Your task to perform on an android device: read, delete, or share a saved page in the chrome app Image 0: 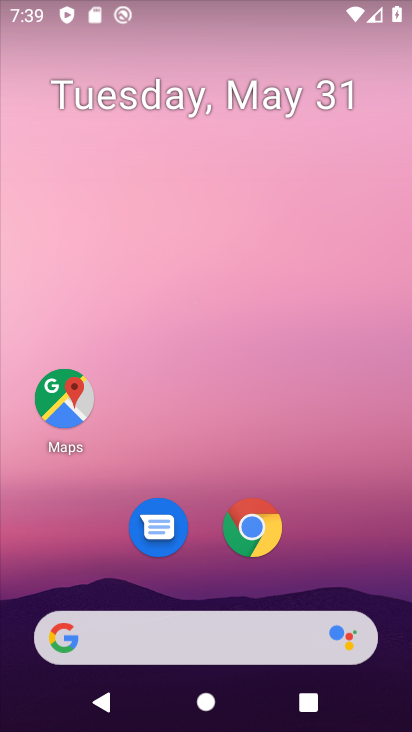
Step 0: click (251, 522)
Your task to perform on an android device: read, delete, or share a saved page in the chrome app Image 1: 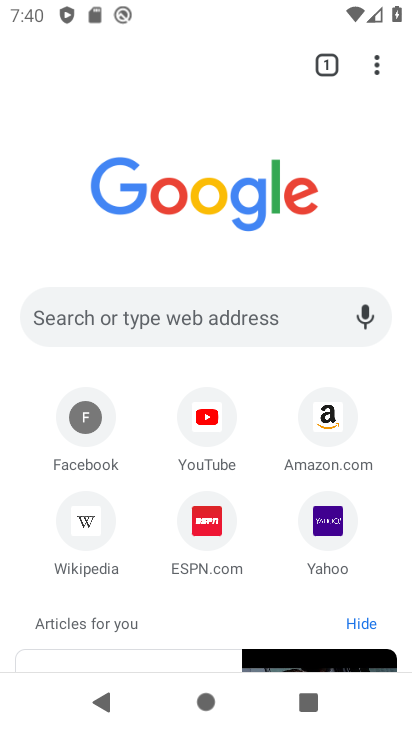
Step 1: click (376, 56)
Your task to perform on an android device: read, delete, or share a saved page in the chrome app Image 2: 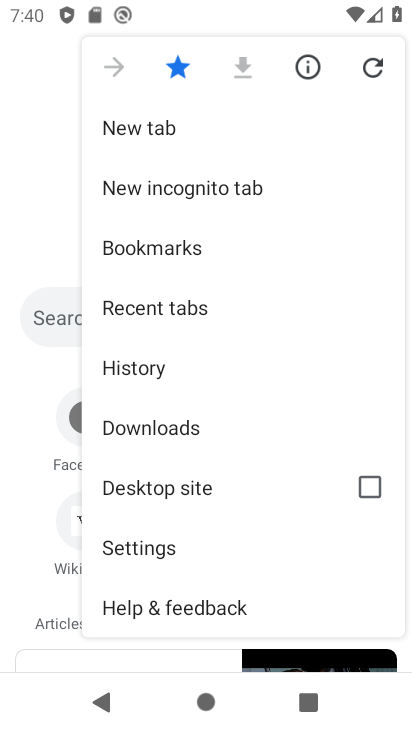
Step 2: click (174, 420)
Your task to perform on an android device: read, delete, or share a saved page in the chrome app Image 3: 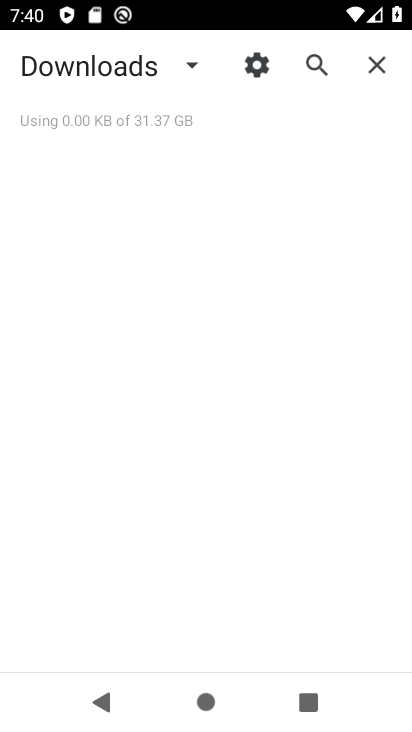
Step 3: task complete